Your task to perform on an android device: Search for pizza restaurants on Maps Image 0: 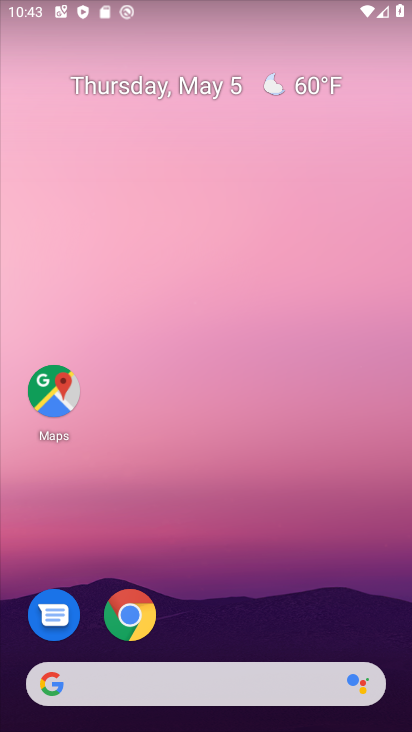
Step 0: drag from (231, 575) to (248, 193)
Your task to perform on an android device: Search for pizza restaurants on Maps Image 1: 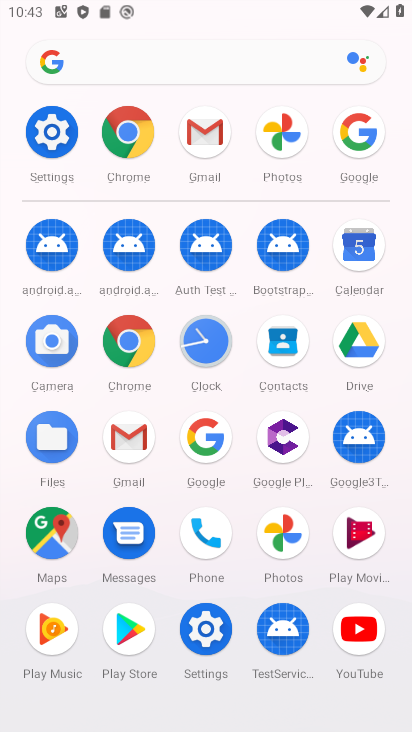
Step 1: click (49, 536)
Your task to perform on an android device: Search for pizza restaurants on Maps Image 2: 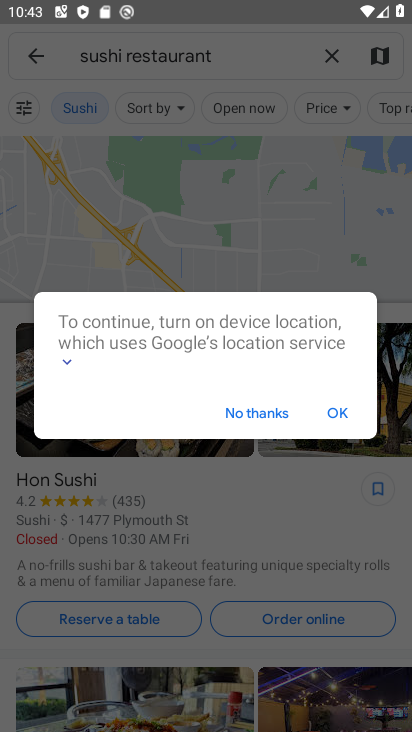
Step 2: click (336, 404)
Your task to perform on an android device: Search for pizza restaurants on Maps Image 3: 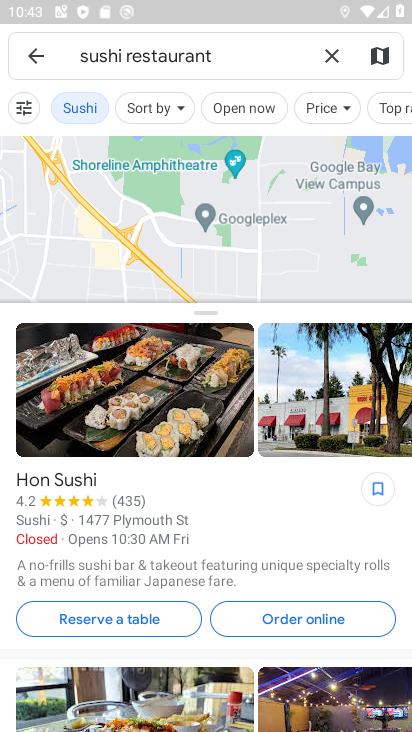
Step 3: click (330, 51)
Your task to perform on an android device: Search for pizza restaurants on Maps Image 4: 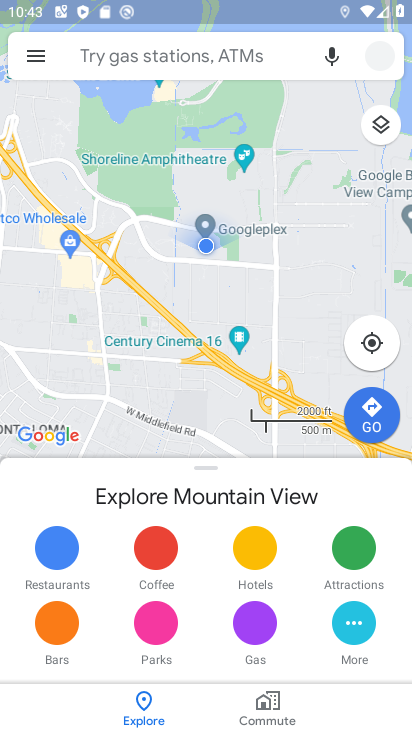
Step 4: click (224, 55)
Your task to perform on an android device: Search for pizza restaurants on Maps Image 5: 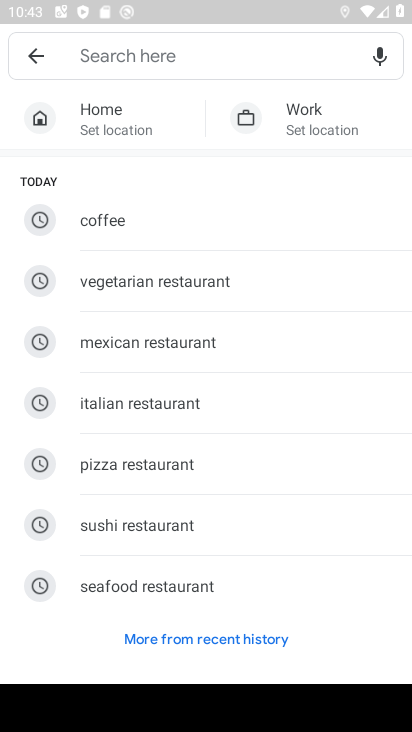
Step 5: click (165, 464)
Your task to perform on an android device: Search for pizza restaurants on Maps Image 6: 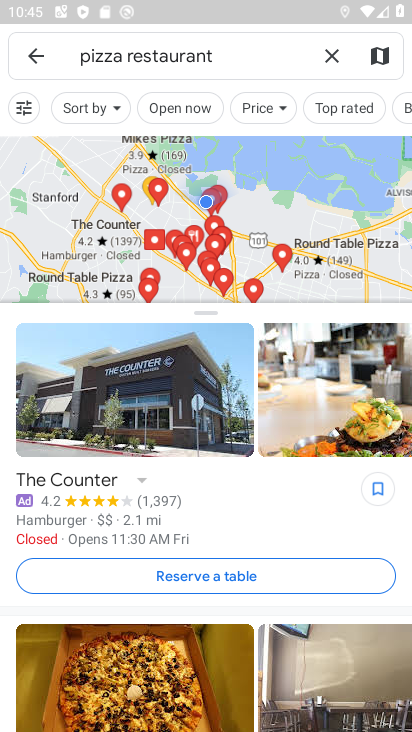
Step 6: task complete